Your task to perform on an android device: Open the map Image 0: 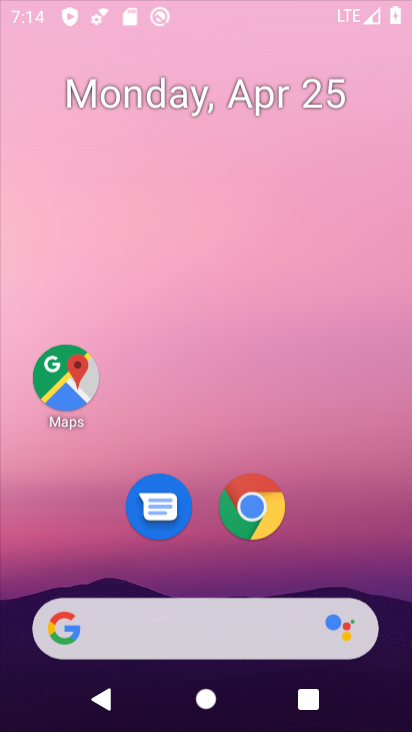
Step 0: drag from (348, 554) to (291, 135)
Your task to perform on an android device: Open the map Image 1: 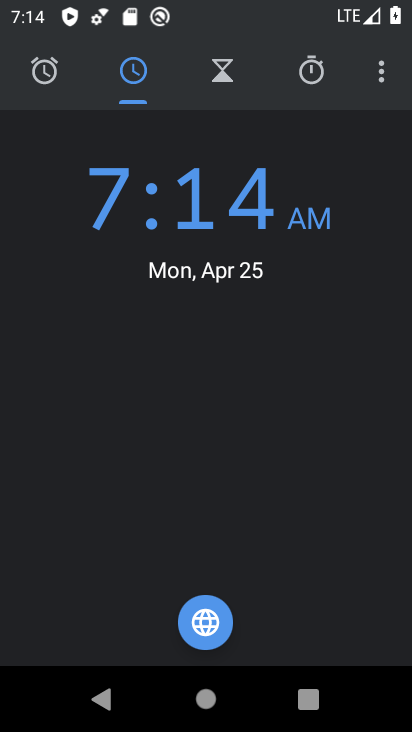
Step 1: press home button
Your task to perform on an android device: Open the map Image 2: 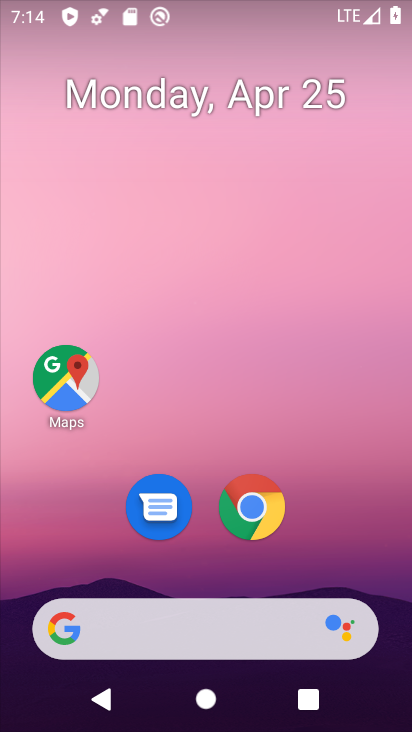
Step 2: click (56, 368)
Your task to perform on an android device: Open the map Image 3: 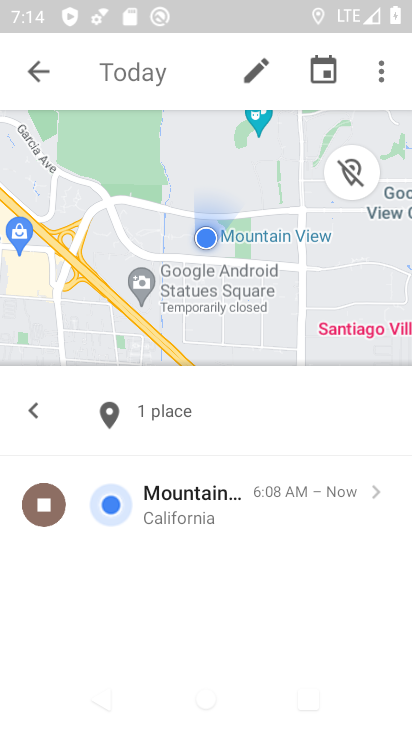
Step 3: task complete